Your task to perform on an android device: Toggle the flashlight Image 0: 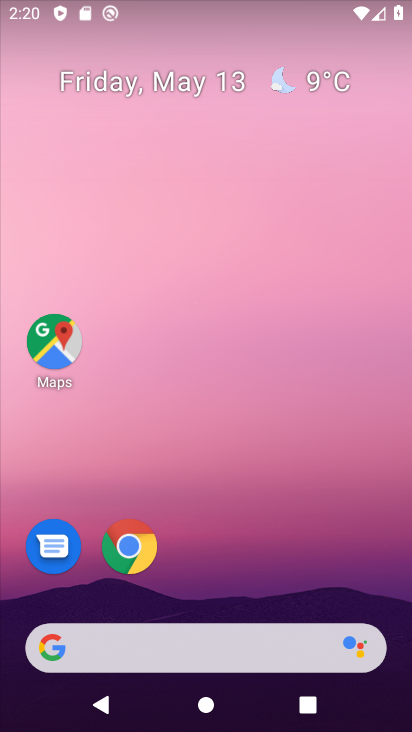
Step 0: drag from (251, 537) to (203, 38)
Your task to perform on an android device: Toggle the flashlight Image 1: 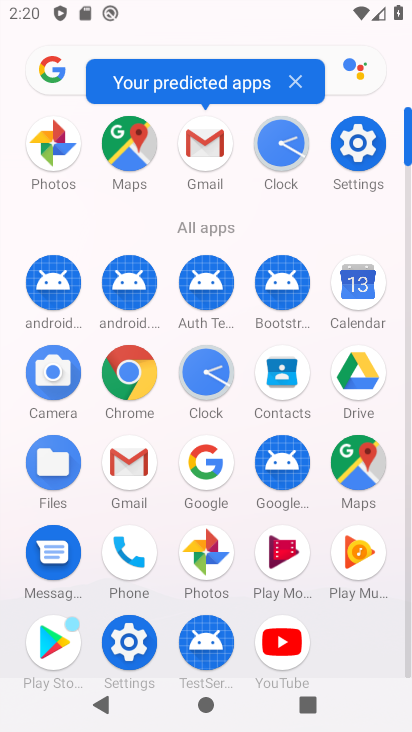
Step 1: click (127, 637)
Your task to perform on an android device: Toggle the flashlight Image 2: 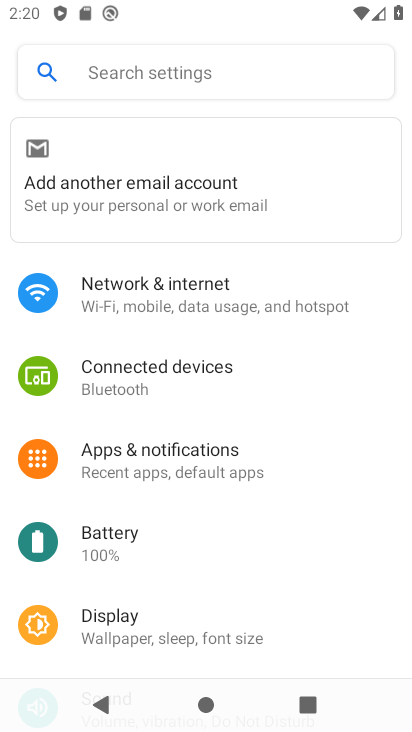
Step 2: drag from (304, 575) to (289, 236)
Your task to perform on an android device: Toggle the flashlight Image 3: 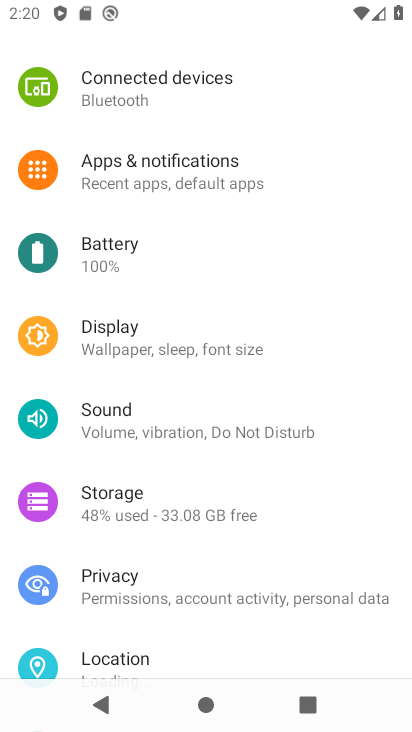
Step 3: drag from (317, 497) to (320, 166)
Your task to perform on an android device: Toggle the flashlight Image 4: 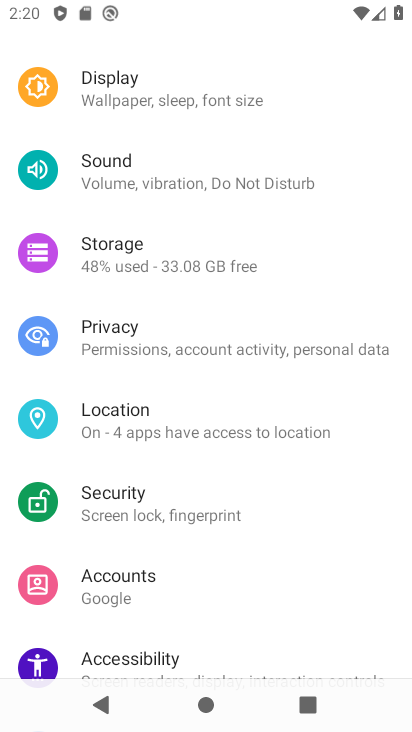
Step 4: drag from (374, 536) to (381, 168)
Your task to perform on an android device: Toggle the flashlight Image 5: 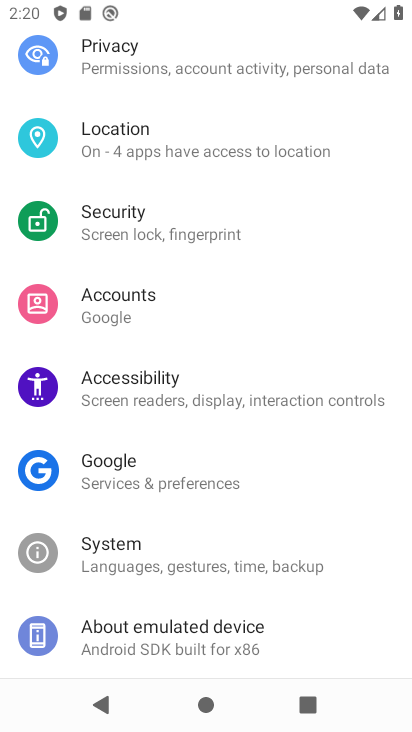
Step 5: drag from (296, 207) to (278, 538)
Your task to perform on an android device: Toggle the flashlight Image 6: 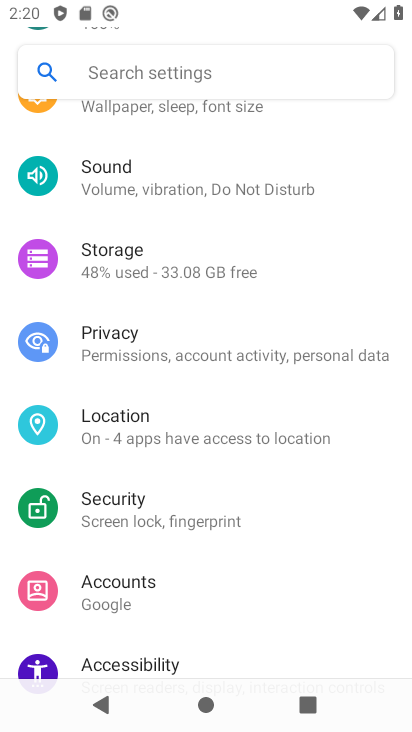
Step 6: drag from (262, 190) to (248, 518)
Your task to perform on an android device: Toggle the flashlight Image 7: 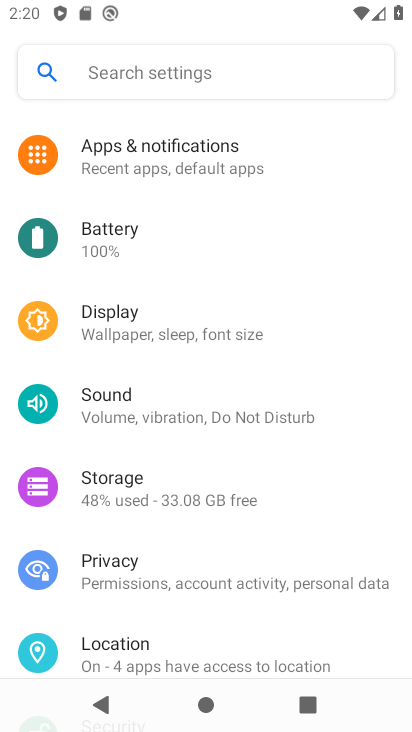
Step 7: drag from (171, 177) to (233, 492)
Your task to perform on an android device: Toggle the flashlight Image 8: 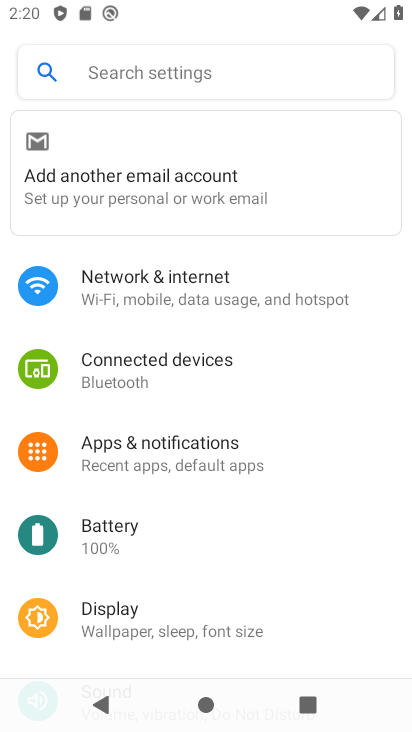
Step 8: click (230, 286)
Your task to perform on an android device: Toggle the flashlight Image 9: 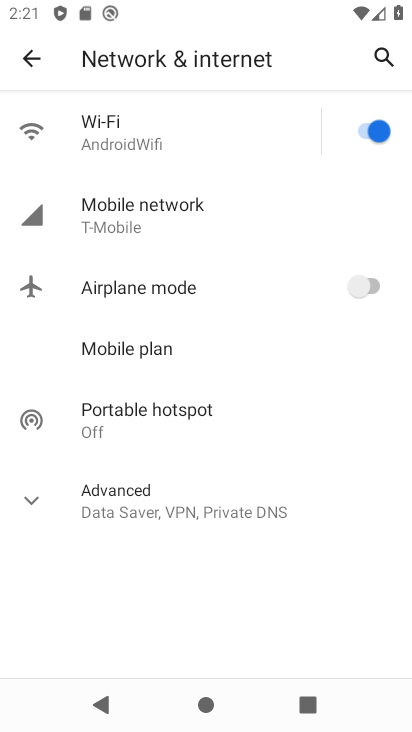
Step 9: click (61, 509)
Your task to perform on an android device: Toggle the flashlight Image 10: 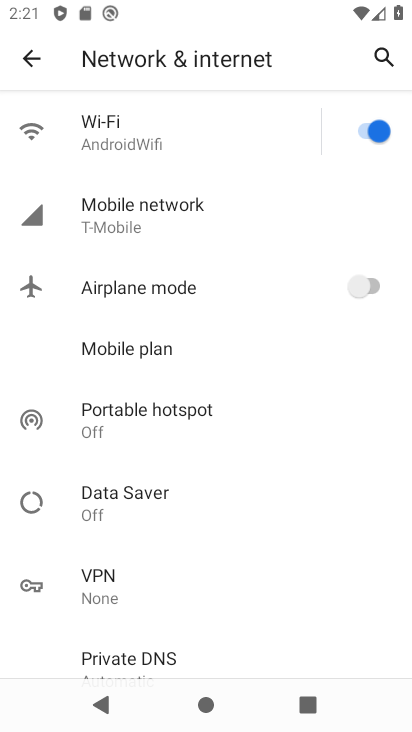
Step 10: task complete